Your task to perform on an android device: Open the web browser Image 0: 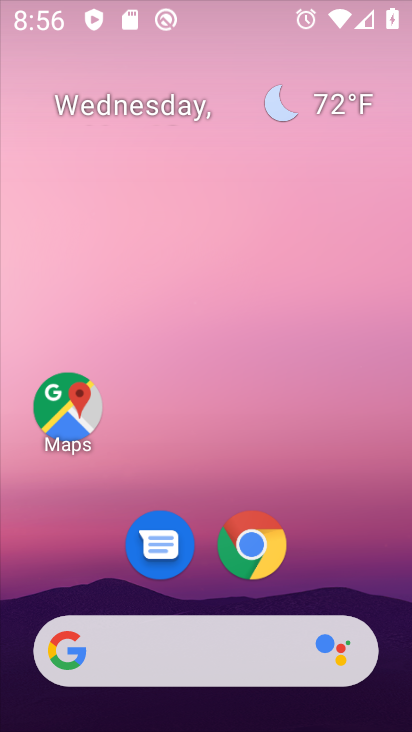
Step 0: drag from (363, 644) to (162, 0)
Your task to perform on an android device: Open the web browser Image 1: 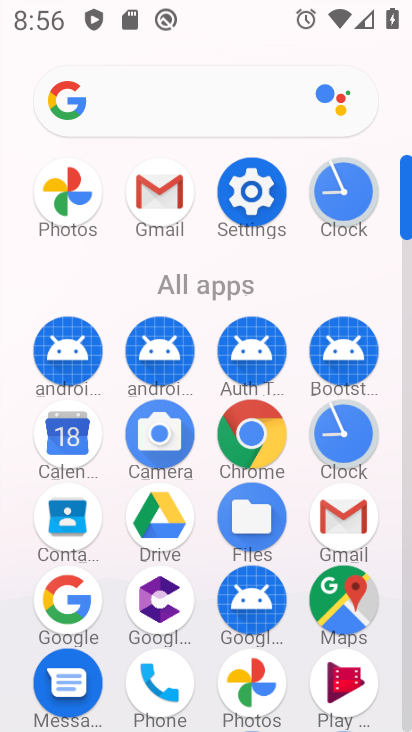
Step 1: click (248, 439)
Your task to perform on an android device: Open the web browser Image 2: 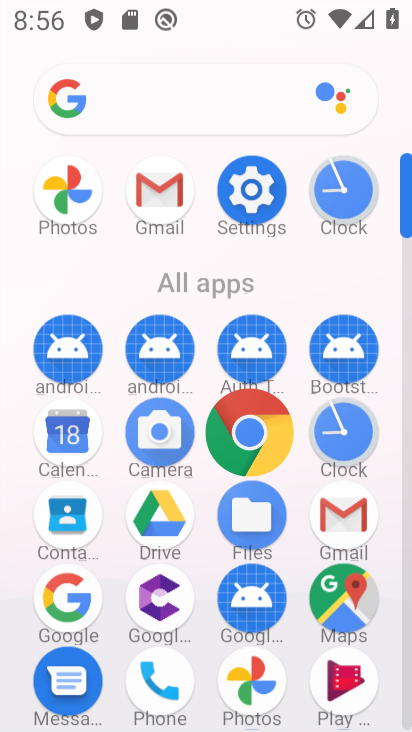
Step 2: click (248, 438)
Your task to perform on an android device: Open the web browser Image 3: 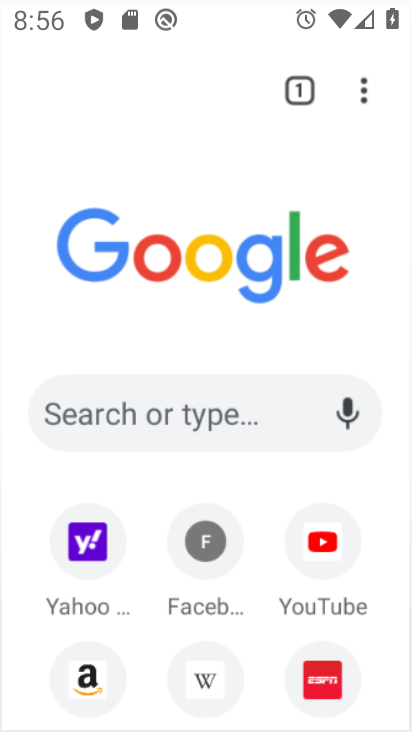
Step 3: click (248, 437)
Your task to perform on an android device: Open the web browser Image 4: 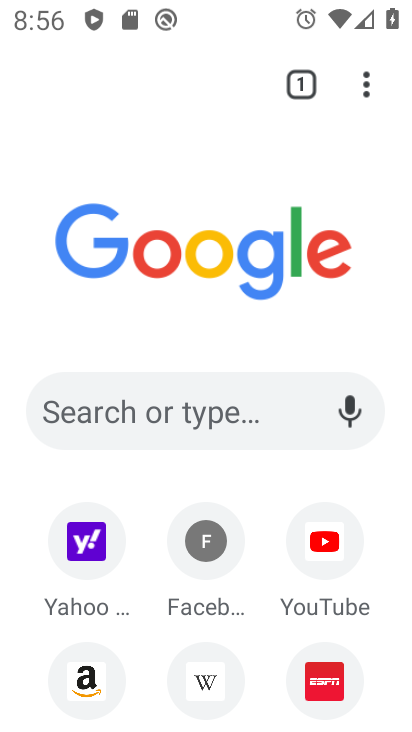
Step 4: click (81, 411)
Your task to perform on an android device: Open the web browser Image 5: 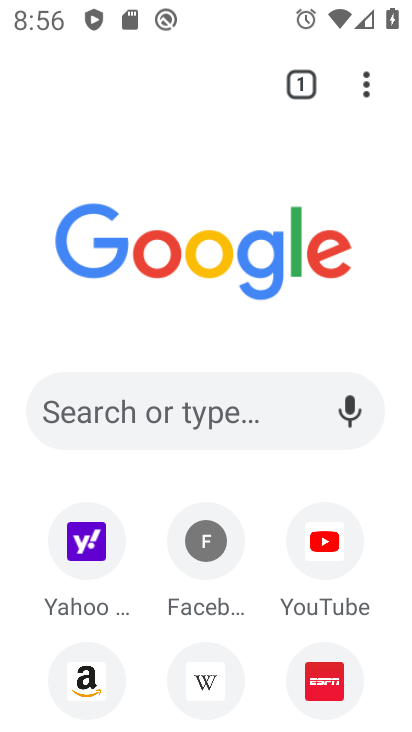
Step 5: click (81, 411)
Your task to perform on an android device: Open the web browser Image 6: 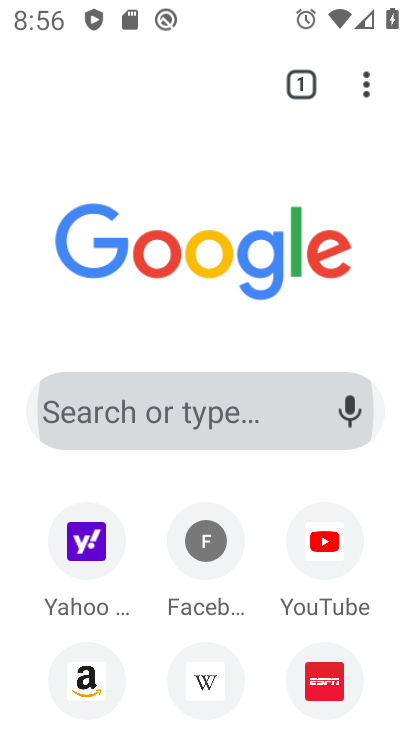
Step 6: click (81, 411)
Your task to perform on an android device: Open the web browser Image 7: 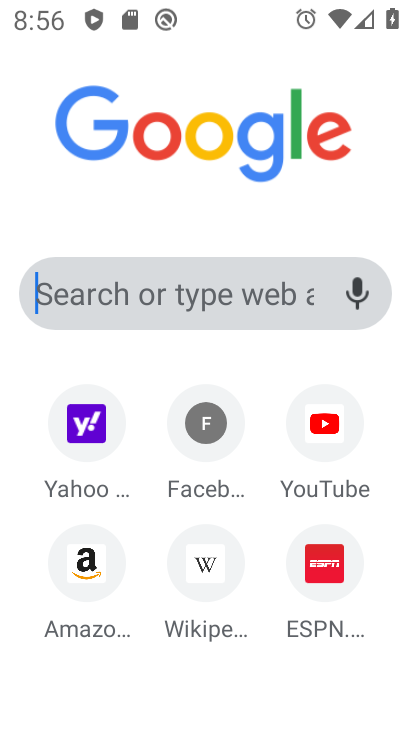
Step 7: click (81, 411)
Your task to perform on an android device: Open the web browser Image 8: 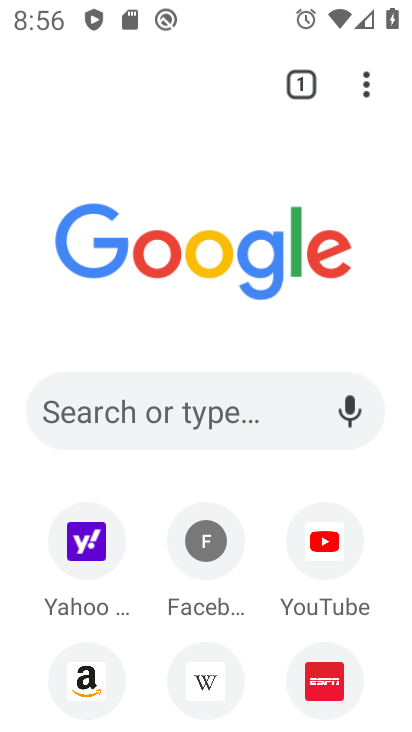
Step 8: click (71, 404)
Your task to perform on an android device: Open the web browser Image 9: 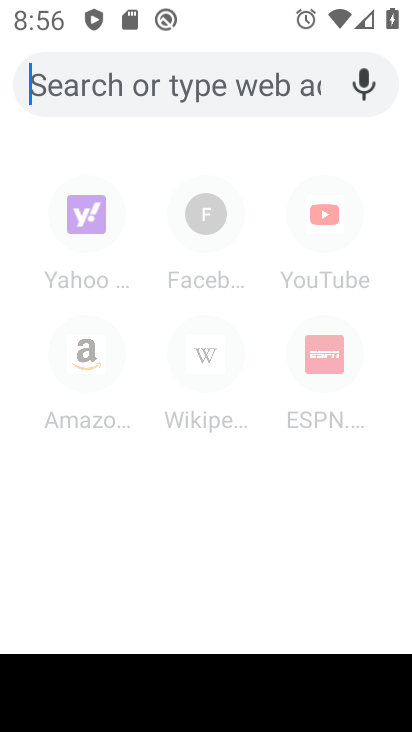
Step 9: type "web browser"
Your task to perform on an android device: Open the web browser Image 10: 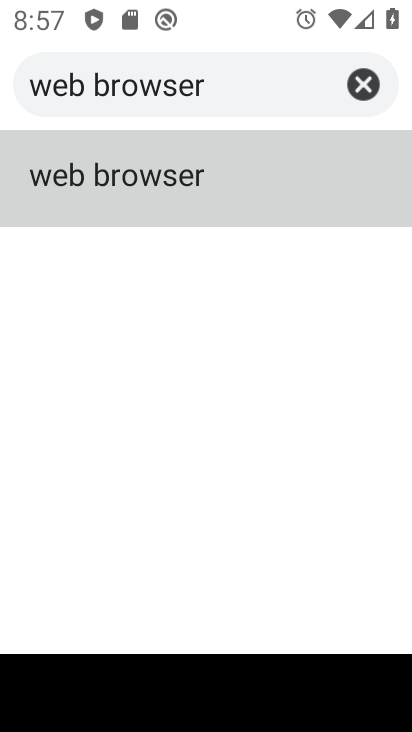
Step 10: click (152, 178)
Your task to perform on an android device: Open the web browser Image 11: 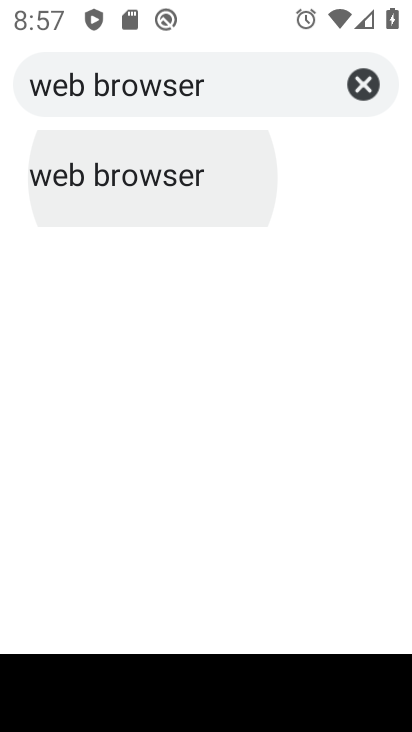
Step 11: click (152, 178)
Your task to perform on an android device: Open the web browser Image 12: 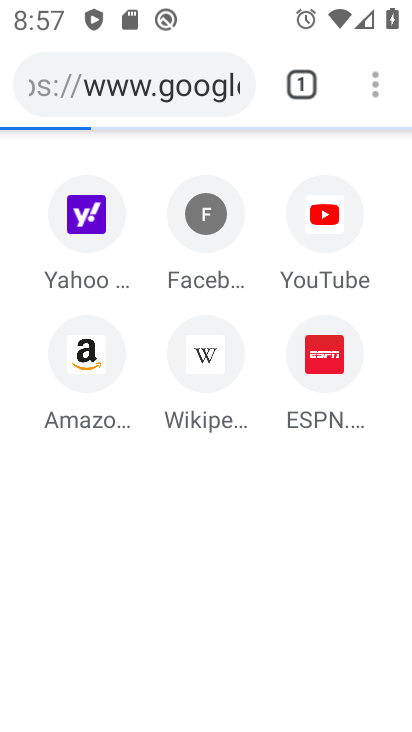
Step 12: click (152, 178)
Your task to perform on an android device: Open the web browser Image 13: 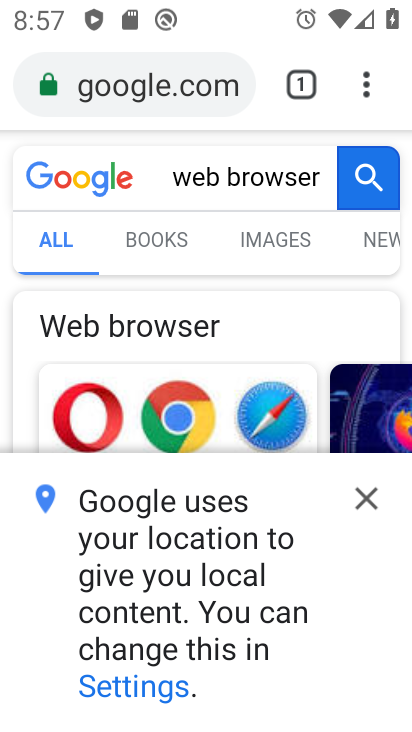
Step 13: task complete